Your task to perform on an android device: turn on the 12-hour format for clock Image 0: 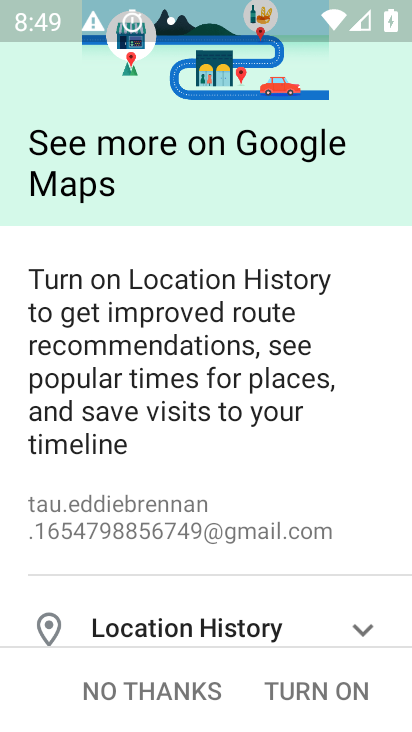
Step 0: drag from (295, 529) to (290, 7)
Your task to perform on an android device: turn on the 12-hour format for clock Image 1: 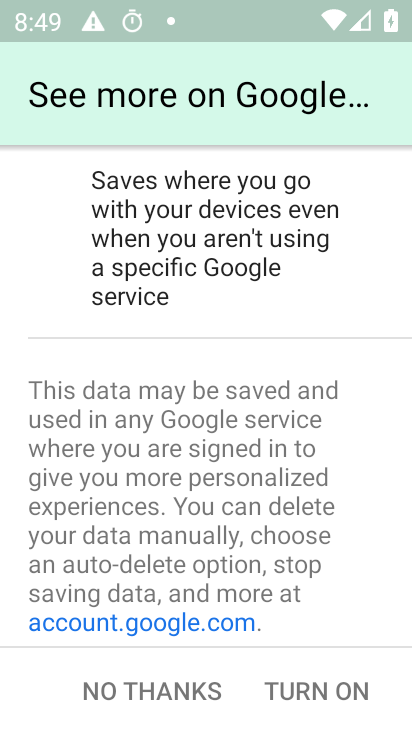
Step 1: drag from (132, 513) to (161, 89)
Your task to perform on an android device: turn on the 12-hour format for clock Image 2: 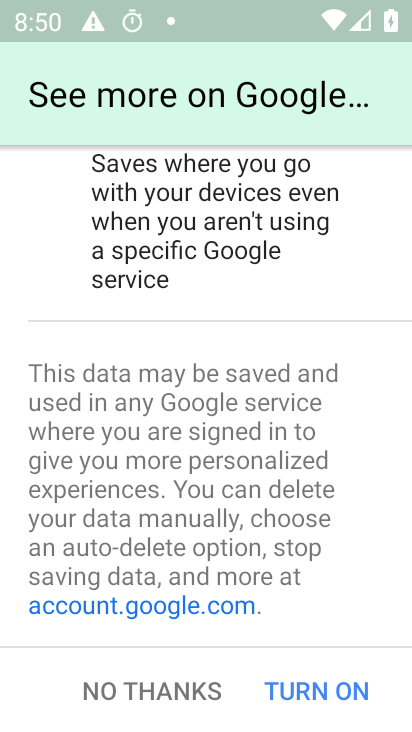
Step 2: drag from (248, 365) to (248, 293)
Your task to perform on an android device: turn on the 12-hour format for clock Image 3: 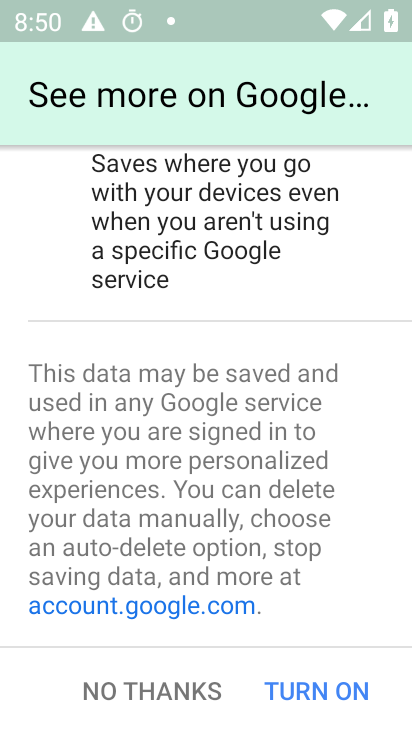
Step 3: press home button
Your task to perform on an android device: turn on the 12-hour format for clock Image 4: 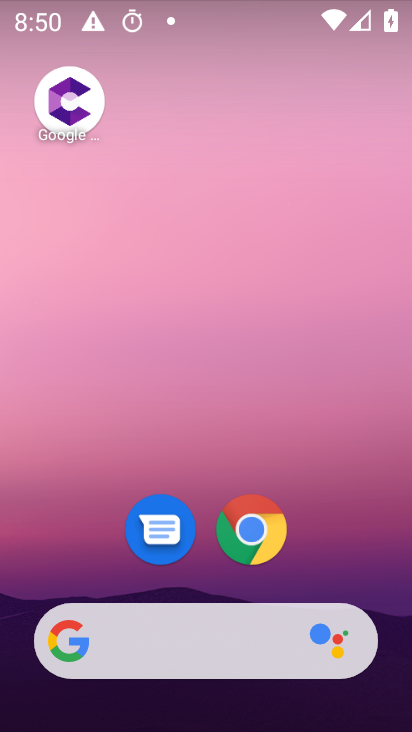
Step 4: drag from (200, 586) to (200, 199)
Your task to perform on an android device: turn on the 12-hour format for clock Image 5: 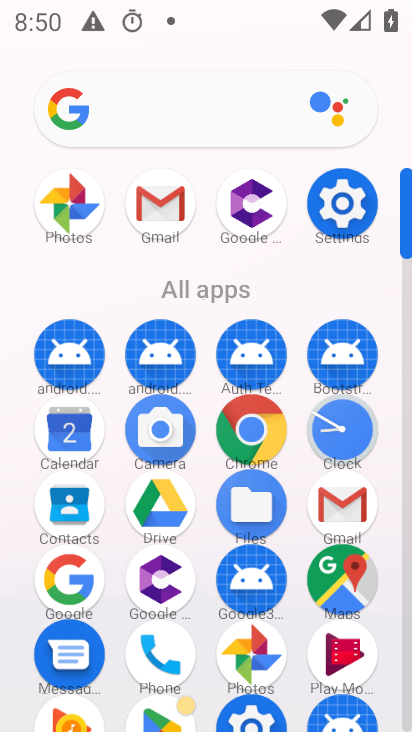
Step 5: drag from (203, 602) to (214, 245)
Your task to perform on an android device: turn on the 12-hour format for clock Image 6: 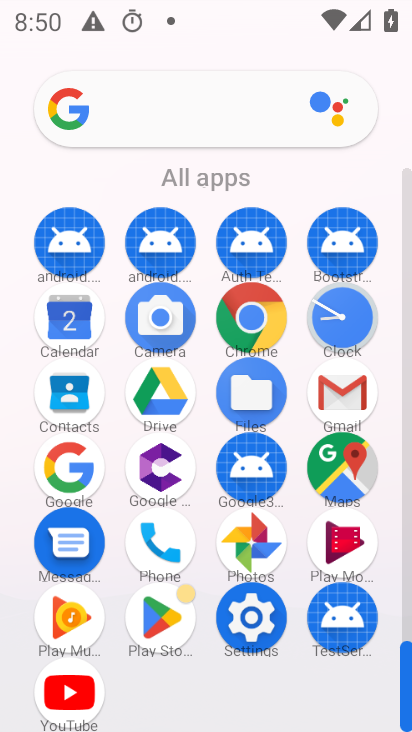
Step 6: click (344, 317)
Your task to perform on an android device: turn on the 12-hour format for clock Image 7: 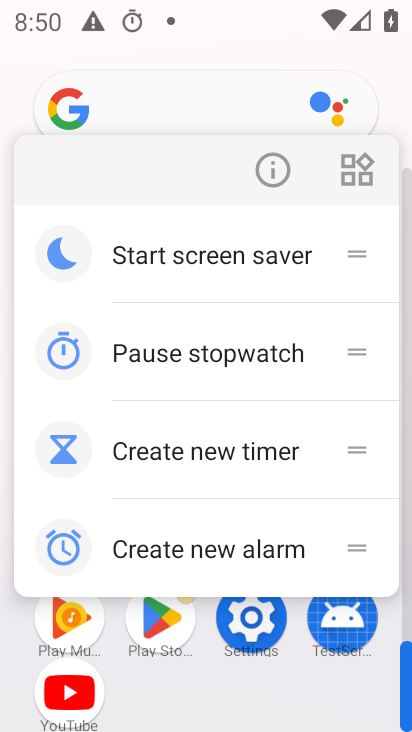
Step 7: click (258, 183)
Your task to perform on an android device: turn on the 12-hour format for clock Image 8: 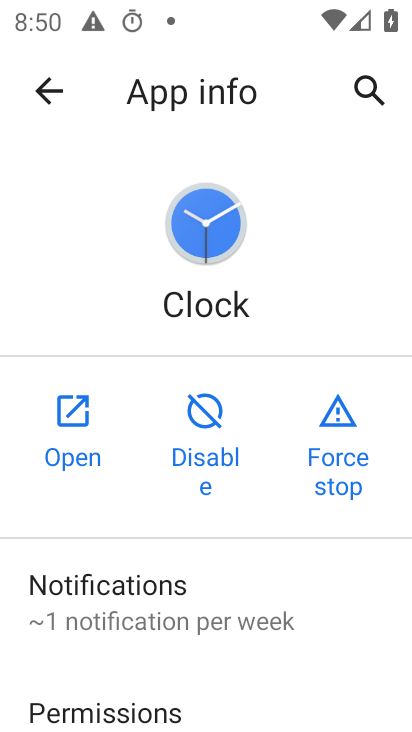
Step 8: click (75, 421)
Your task to perform on an android device: turn on the 12-hour format for clock Image 9: 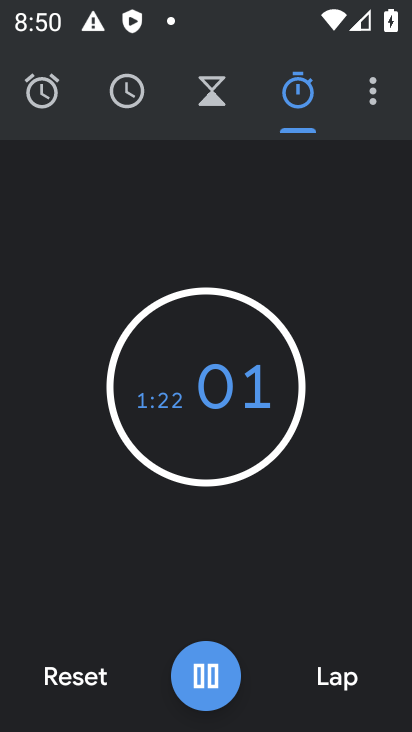
Step 9: click (71, 685)
Your task to perform on an android device: turn on the 12-hour format for clock Image 10: 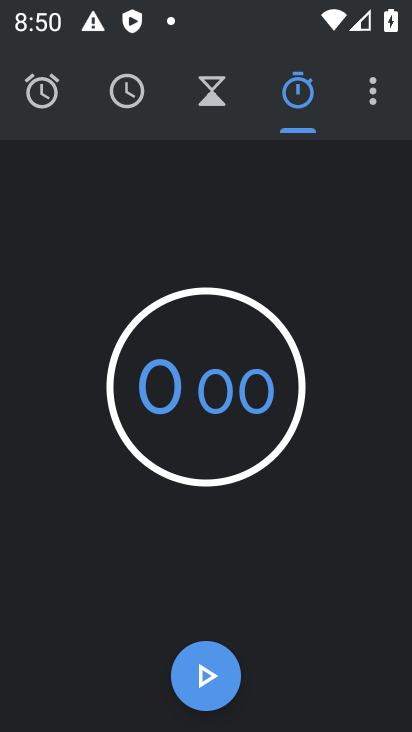
Step 10: click (372, 92)
Your task to perform on an android device: turn on the 12-hour format for clock Image 11: 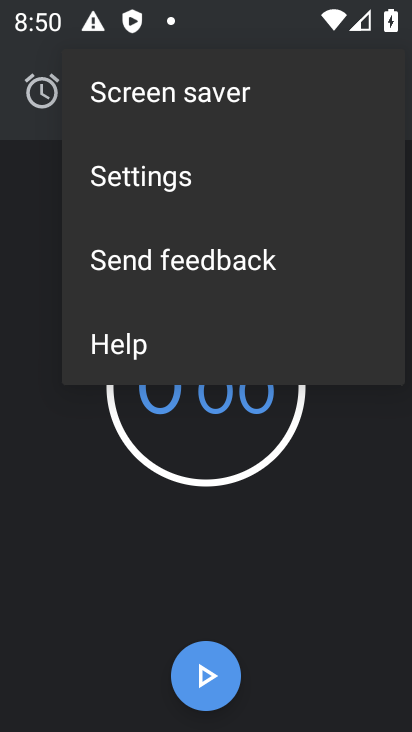
Step 11: click (168, 193)
Your task to perform on an android device: turn on the 12-hour format for clock Image 12: 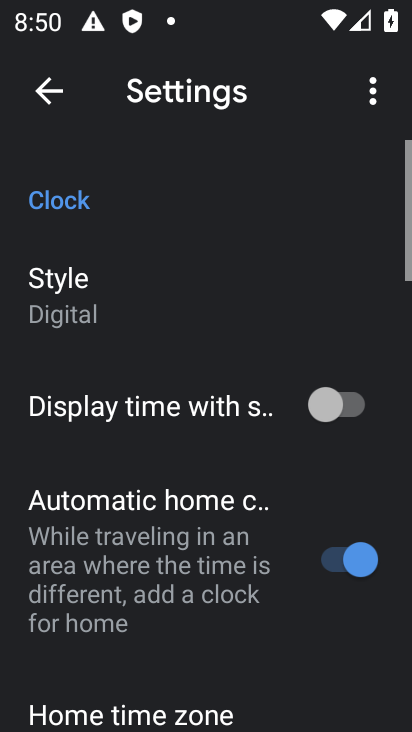
Step 12: drag from (182, 604) to (338, 86)
Your task to perform on an android device: turn on the 12-hour format for clock Image 13: 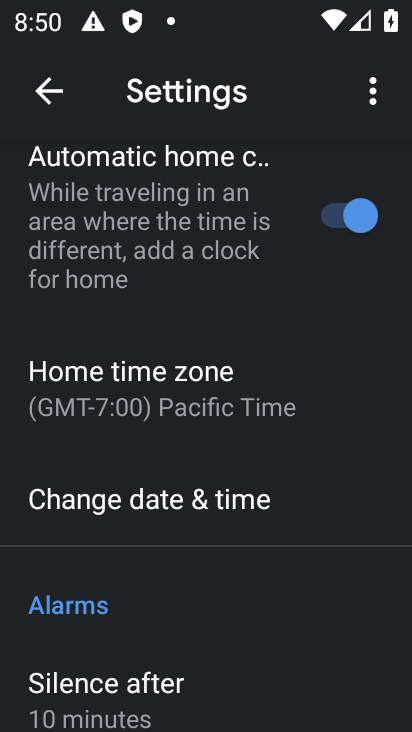
Step 13: drag from (177, 618) to (306, 80)
Your task to perform on an android device: turn on the 12-hour format for clock Image 14: 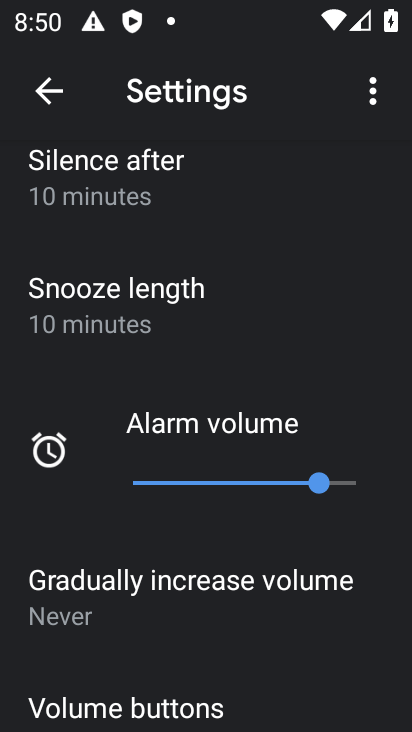
Step 14: drag from (168, 556) to (292, 67)
Your task to perform on an android device: turn on the 12-hour format for clock Image 15: 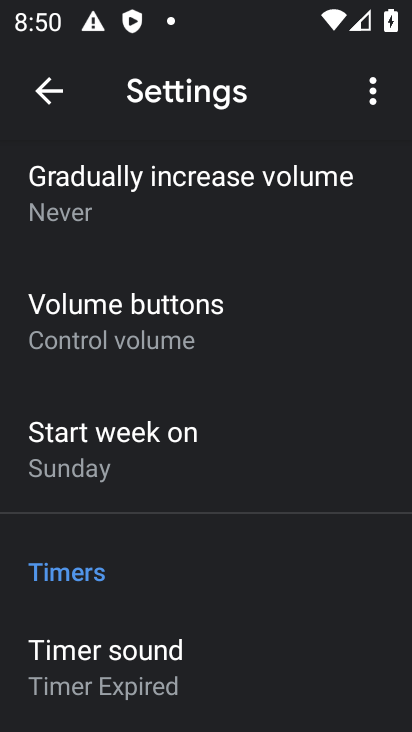
Step 15: drag from (238, 255) to (266, 724)
Your task to perform on an android device: turn on the 12-hour format for clock Image 16: 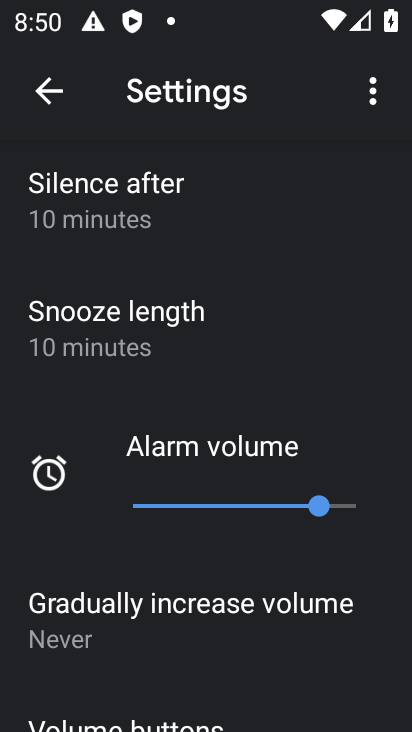
Step 16: drag from (227, 289) to (291, 727)
Your task to perform on an android device: turn on the 12-hour format for clock Image 17: 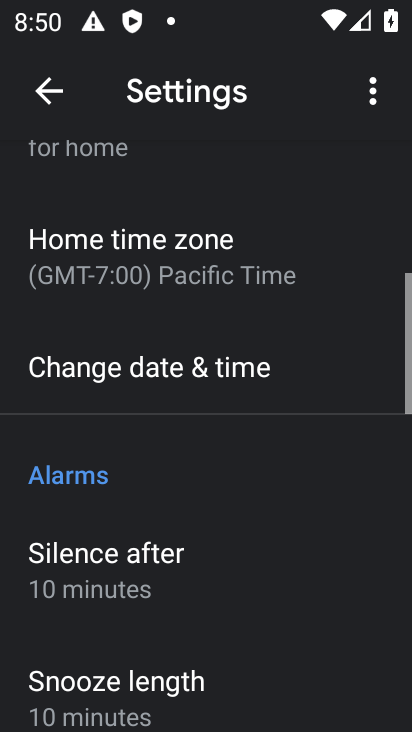
Step 17: click (182, 363)
Your task to perform on an android device: turn on the 12-hour format for clock Image 18: 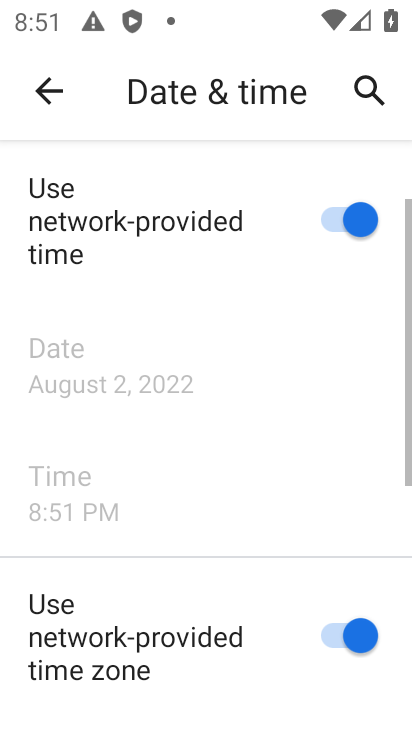
Step 18: task complete